Your task to perform on an android device: turn on sleep mode Image 0: 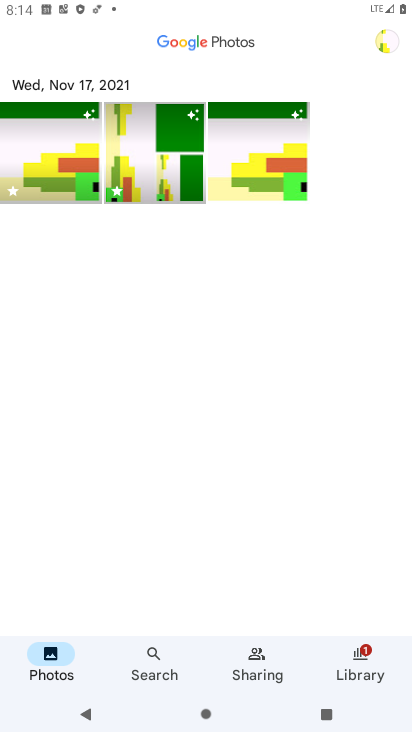
Step 0: press home button
Your task to perform on an android device: turn on sleep mode Image 1: 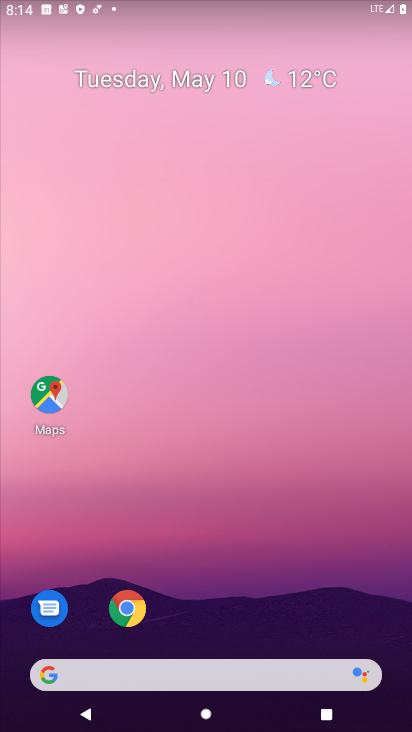
Step 1: drag from (186, 675) to (304, 48)
Your task to perform on an android device: turn on sleep mode Image 2: 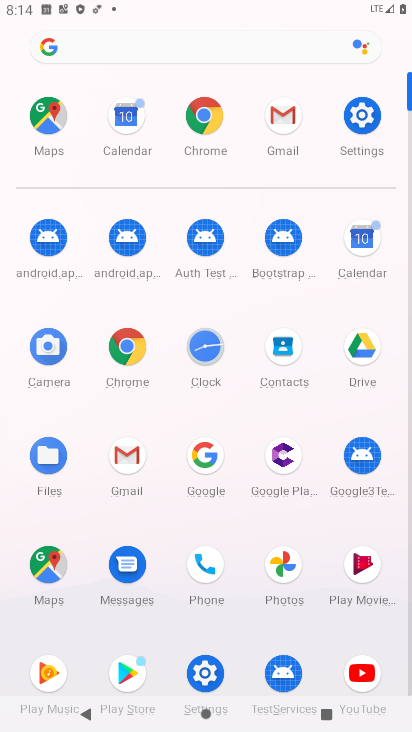
Step 2: click (365, 116)
Your task to perform on an android device: turn on sleep mode Image 3: 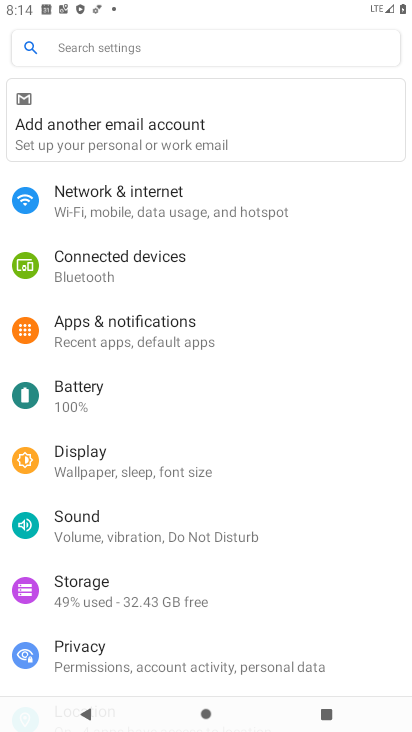
Step 3: click (138, 471)
Your task to perform on an android device: turn on sleep mode Image 4: 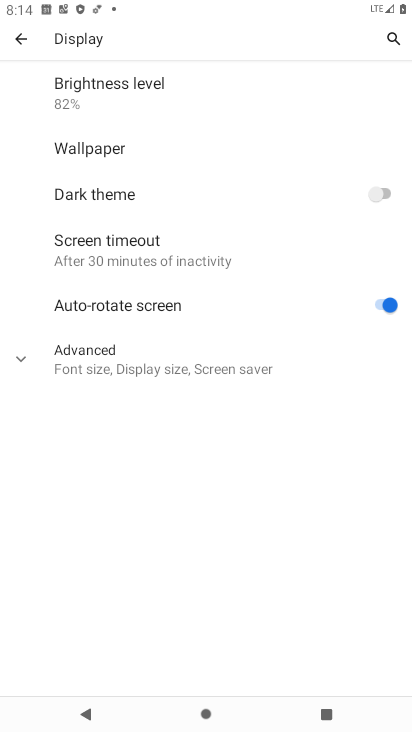
Step 4: task complete